Your task to perform on an android device: Open Android settings Image 0: 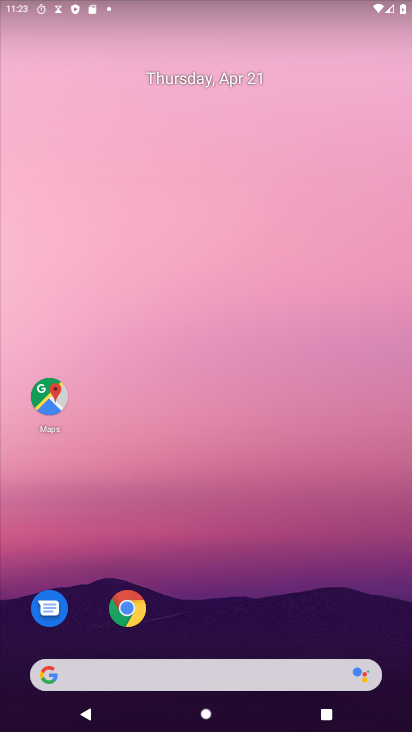
Step 0: click (180, 617)
Your task to perform on an android device: Open Android settings Image 1: 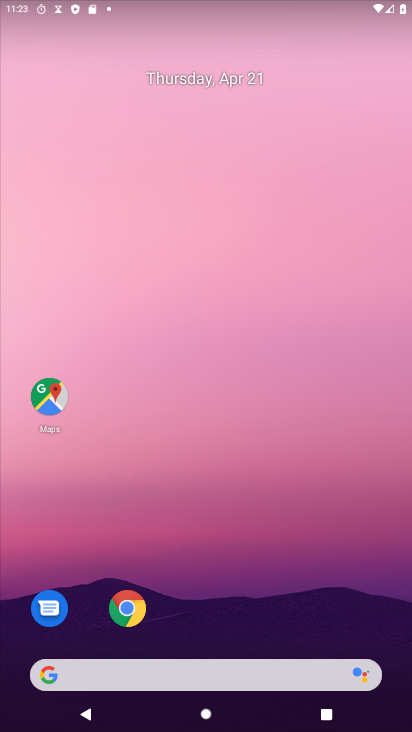
Step 1: drag from (180, 617) to (204, 213)
Your task to perform on an android device: Open Android settings Image 2: 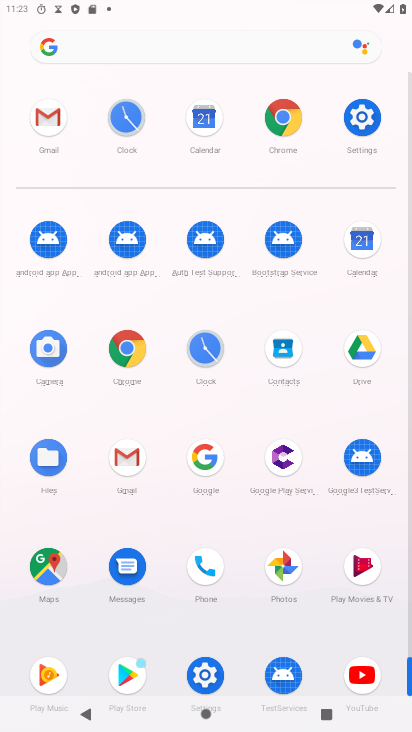
Step 2: click (372, 119)
Your task to perform on an android device: Open Android settings Image 3: 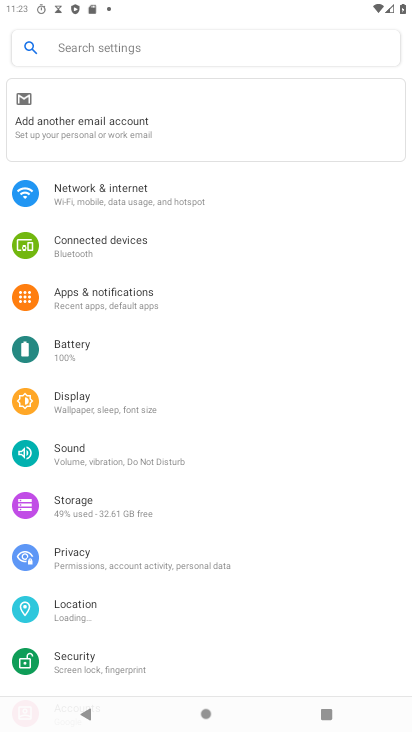
Step 3: task complete